Your task to perform on an android device: See recent photos Image 0: 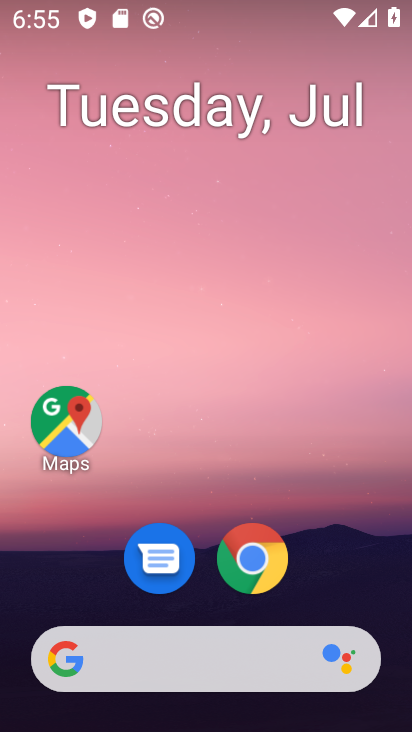
Step 0: drag from (110, 605) to (180, 31)
Your task to perform on an android device: See recent photos Image 1: 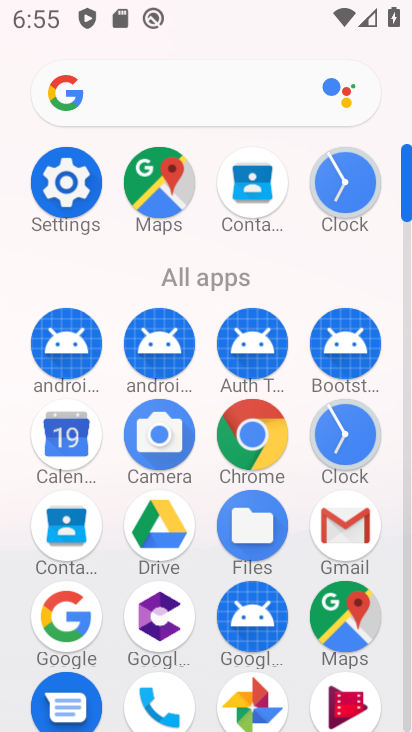
Step 1: click (266, 700)
Your task to perform on an android device: See recent photos Image 2: 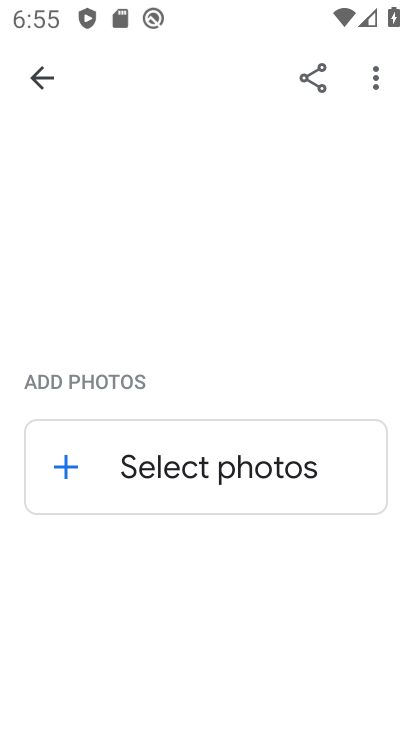
Step 2: click (44, 64)
Your task to perform on an android device: See recent photos Image 3: 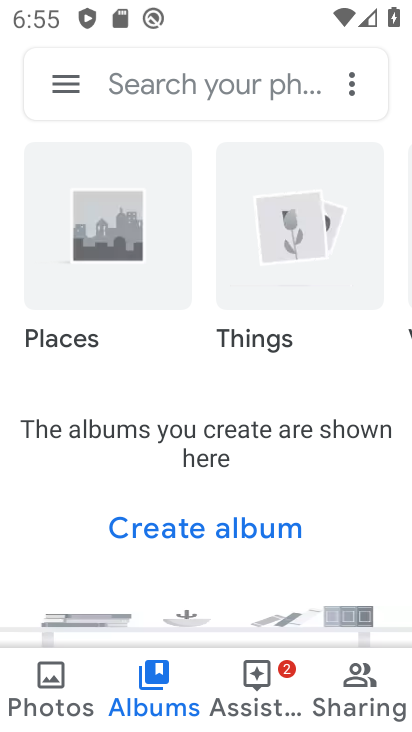
Step 3: click (62, 687)
Your task to perform on an android device: See recent photos Image 4: 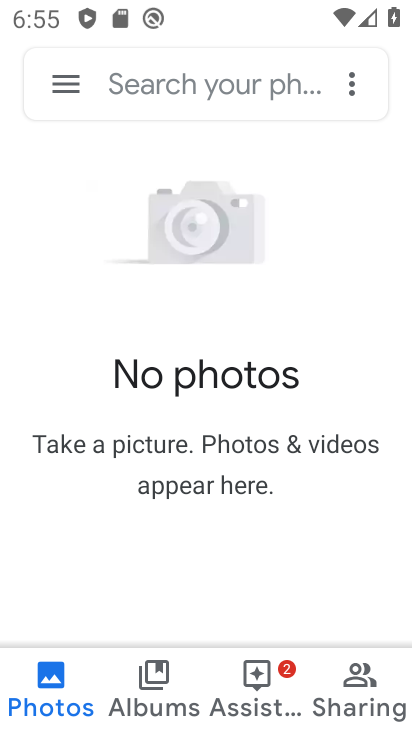
Step 4: task complete